Your task to perform on an android device: Go to eBay Image 0: 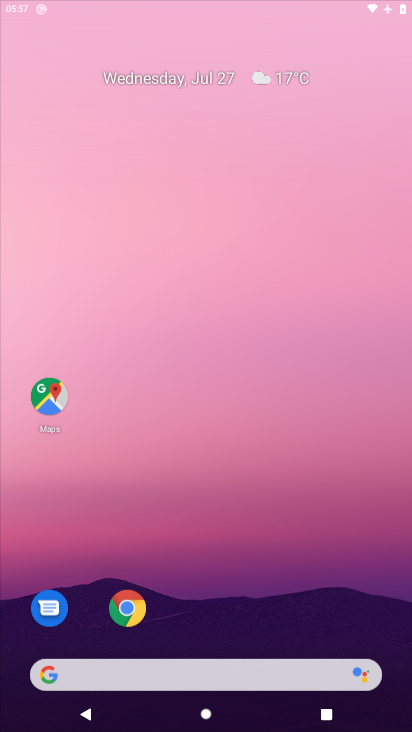
Step 0: press home button
Your task to perform on an android device: Go to eBay Image 1: 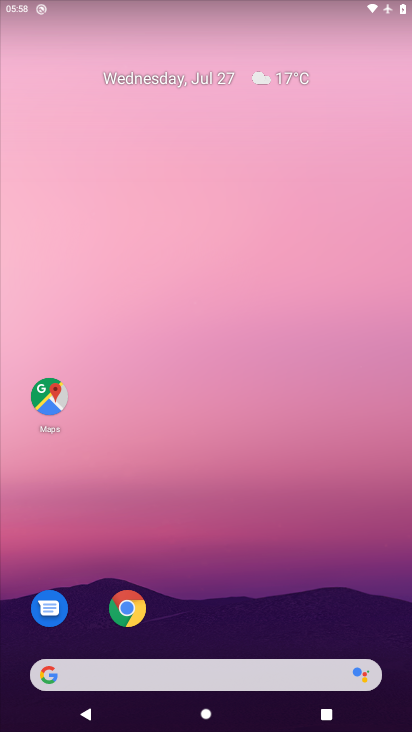
Step 1: click (46, 680)
Your task to perform on an android device: Go to eBay Image 2: 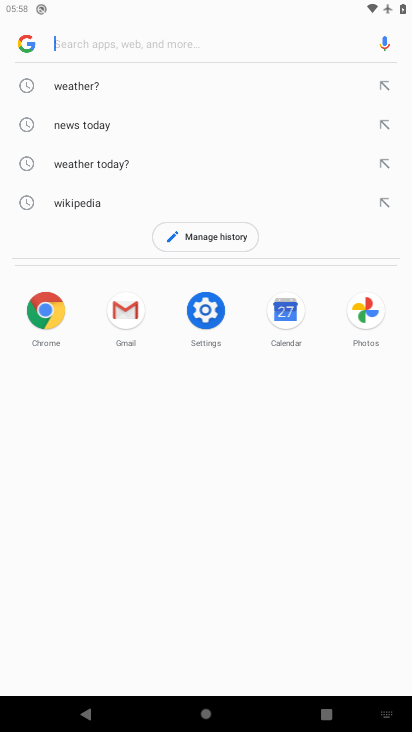
Step 2: press enter
Your task to perform on an android device: Go to eBay Image 3: 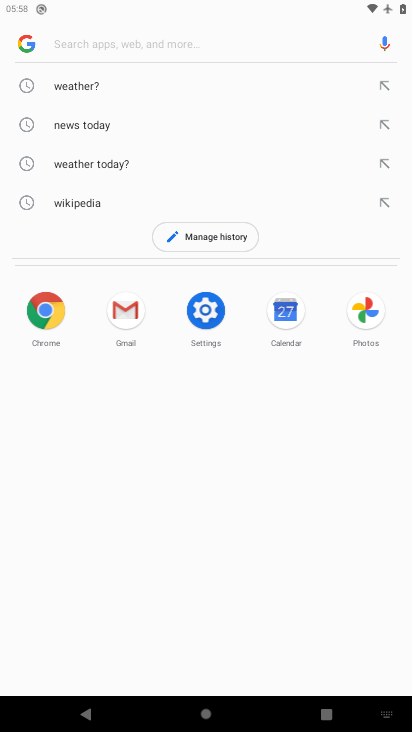
Step 3: type "eBay"
Your task to perform on an android device: Go to eBay Image 4: 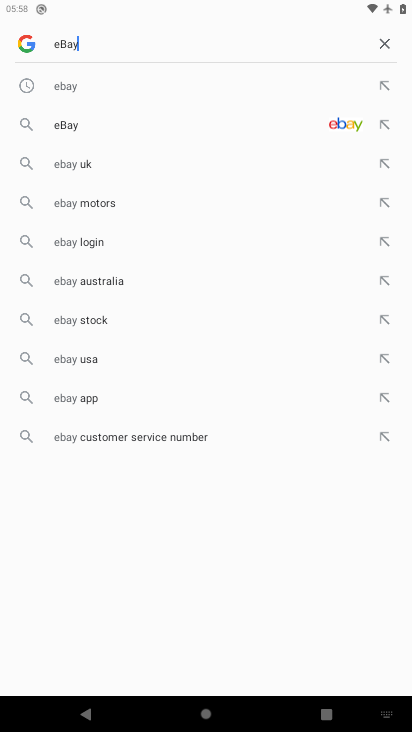
Step 4: click (62, 84)
Your task to perform on an android device: Go to eBay Image 5: 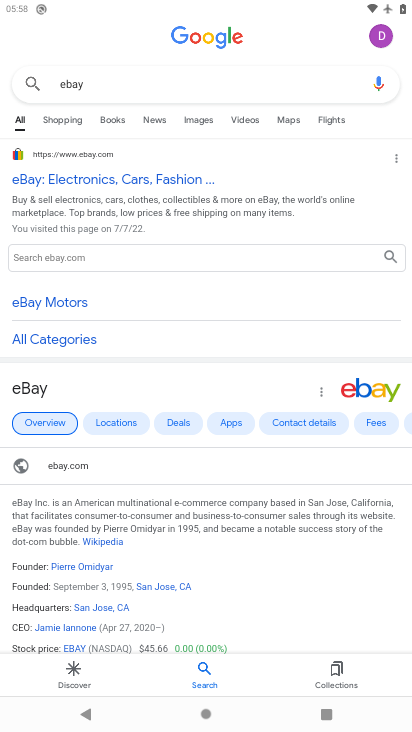
Step 5: click (100, 177)
Your task to perform on an android device: Go to eBay Image 6: 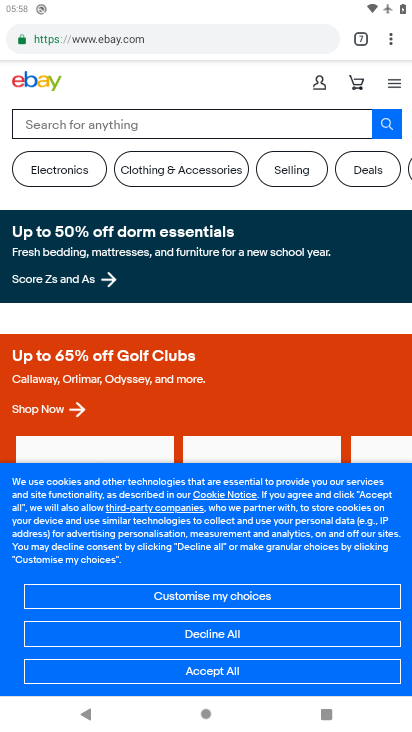
Step 6: task complete